Your task to perform on an android device: Open Chrome and go to settings Image 0: 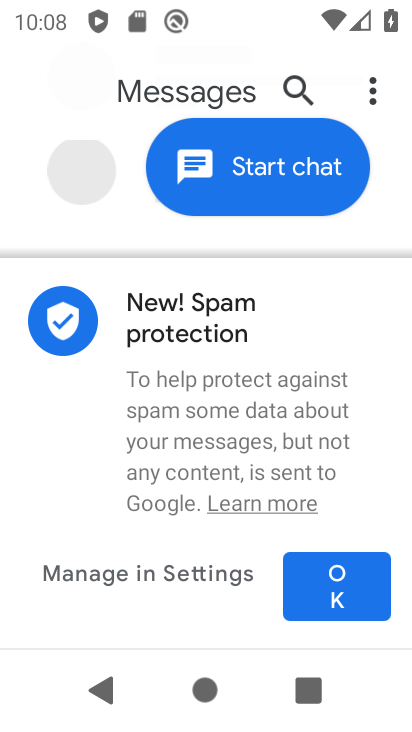
Step 0: press home button
Your task to perform on an android device: Open Chrome and go to settings Image 1: 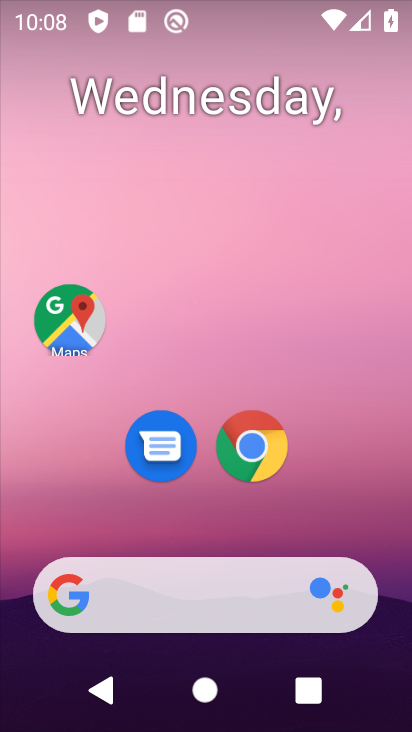
Step 1: click (245, 445)
Your task to perform on an android device: Open Chrome and go to settings Image 2: 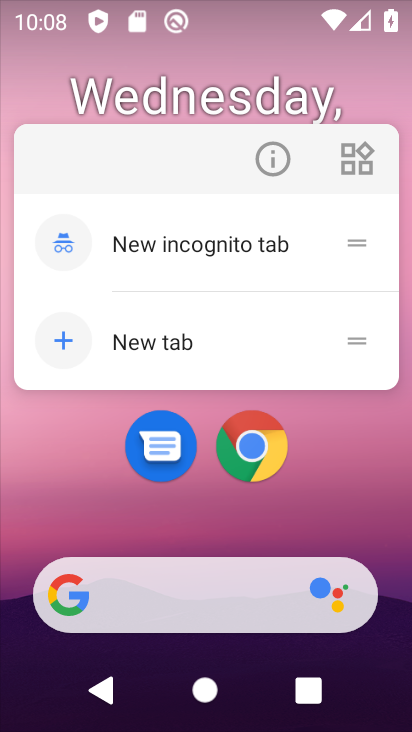
Step 2: click (243, 442)
Your task to perform on an android device: Open Chrome and go to settings Image 3: 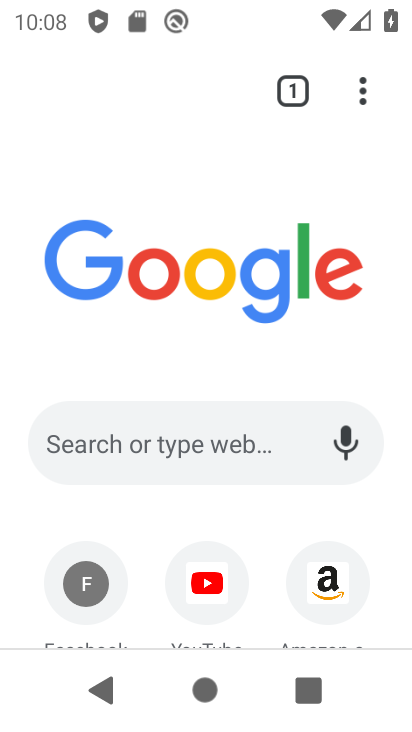
Step 3: task complete